Your task to perform on an android device: Go to Google maps Image 0: 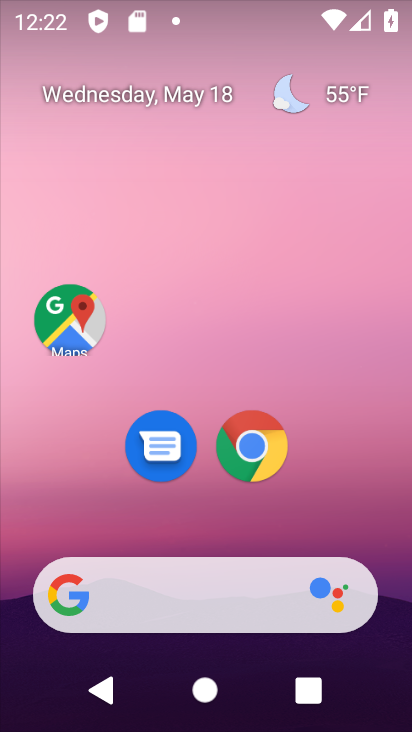
Step 0: click (84, 269)
Your task to perform on an android device: Go to Google maps Image 1: 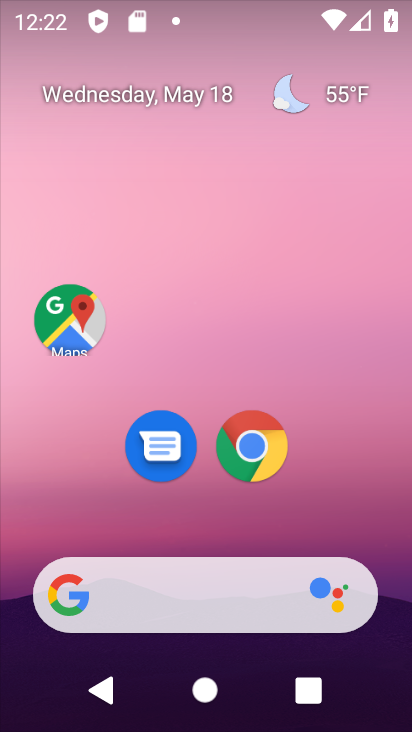
Step 1: click (74, 321)
Your task to perform on an android device: Go to Google maps Image 2: 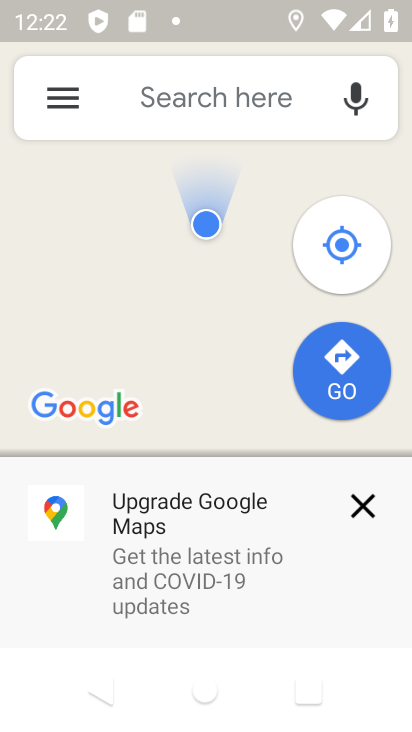
Step 2: task complete